Your task to perform on an android device: Go to settings Image 0: 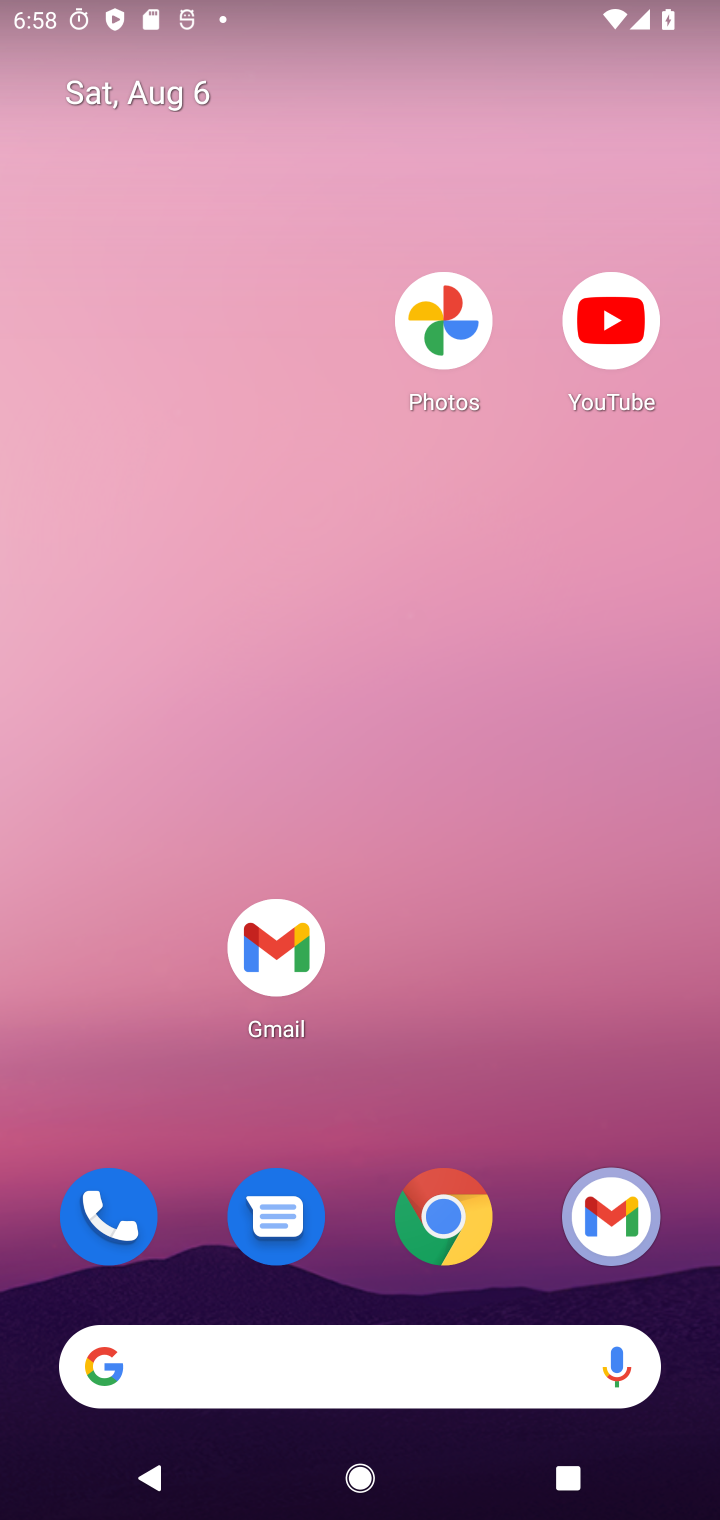
Step 0: drag from (532, 1014) to (541, 278)
Your task to perform on an android device: Go to settings Image 1: 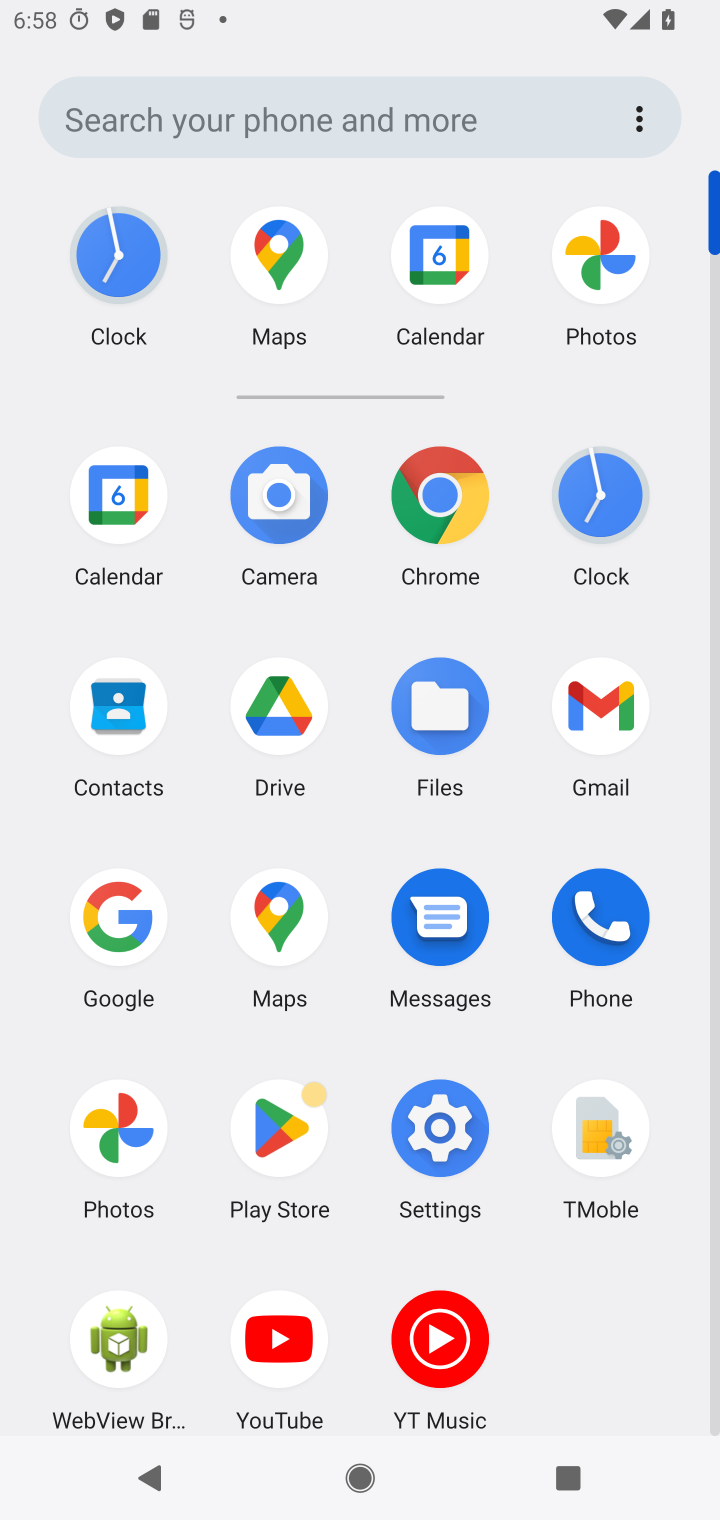
Step 1: click (442, 1101)
Your task to perform on an android device: Go to settings Image 2: 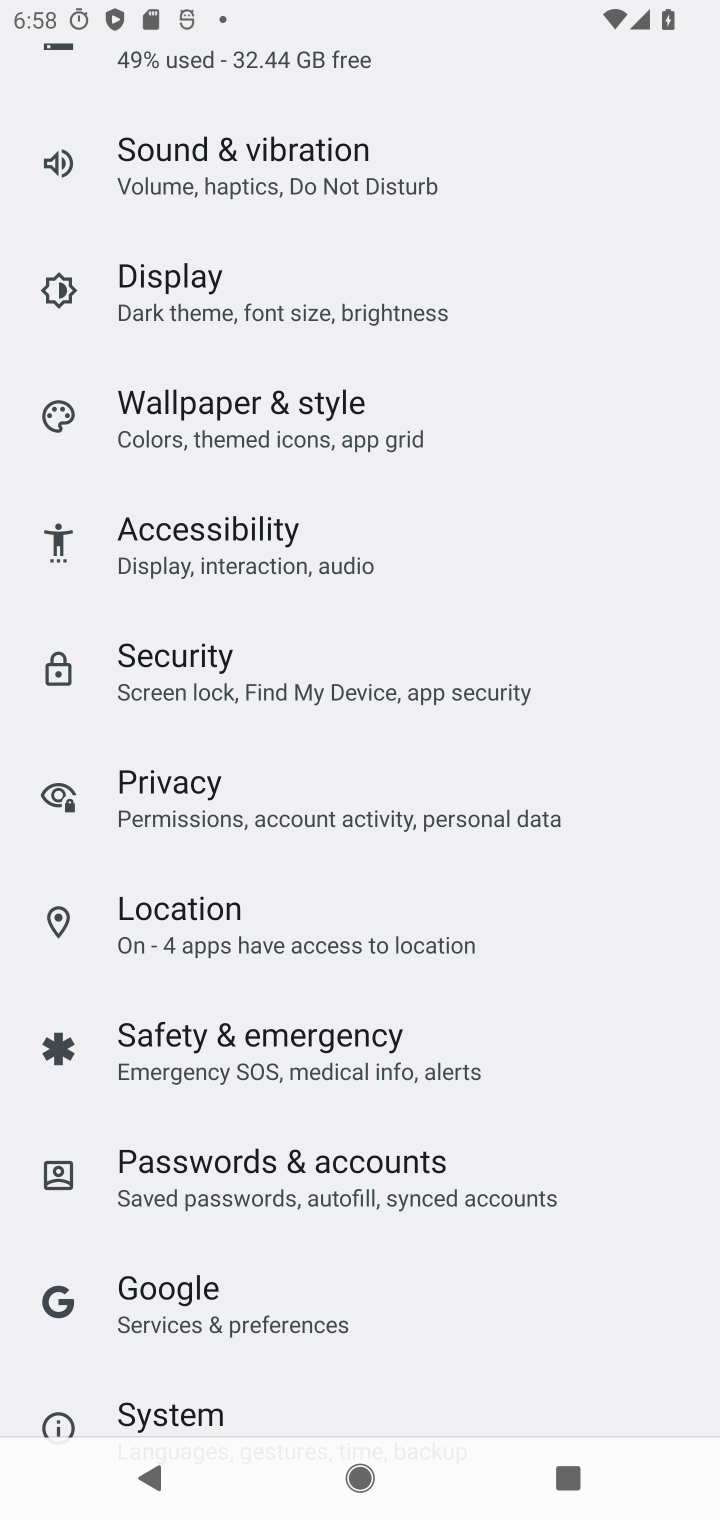
Step 2: task complete